Your task to perform on an android device: Open settings Image 0: 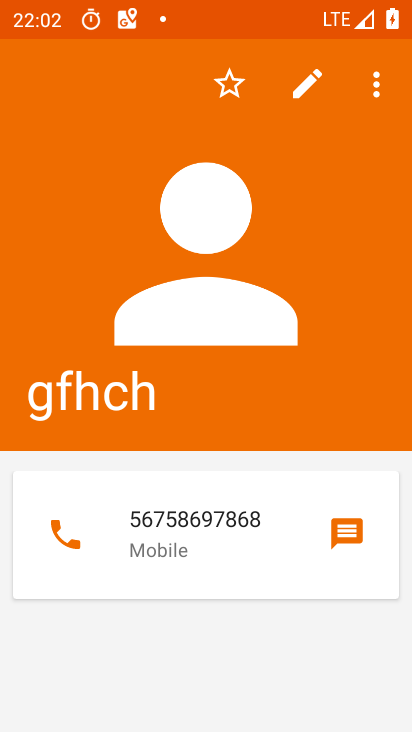
Step 0: press home button
Your task to perform on an android device: Open settings Image 1: 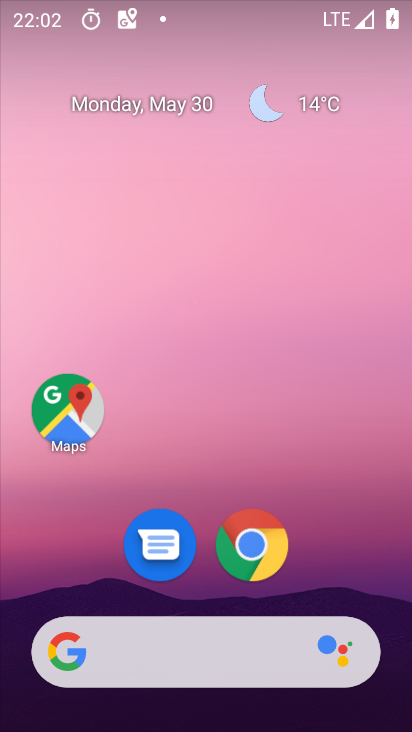
Step 1: drag from (300, 596) to (316, 322)
Your task to perform on an android device: Open settings Image 2: 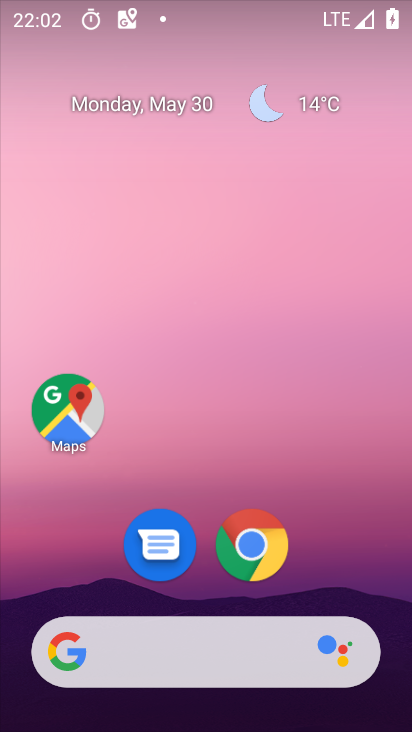
Step 2: drag from (321, 566) to (306, 85)
Your task to perform on an android device: Open settings Image 3: 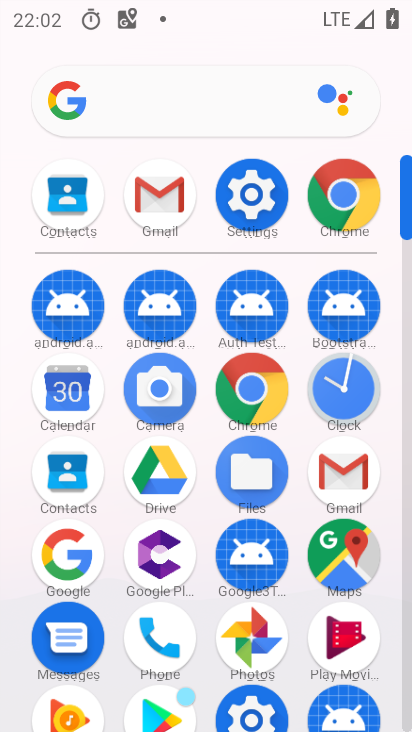
Step 3: click (256, 193)
Your task to perform on an android device: Open settings Image 4: 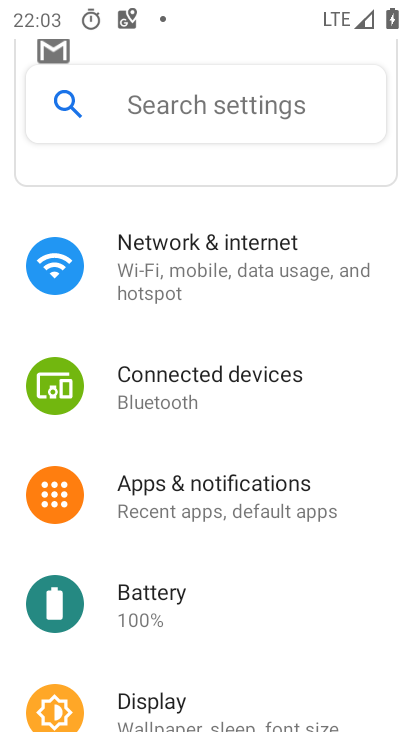
Step 4: task complete